Your task to perform on an android device: set an alarm Image 0: 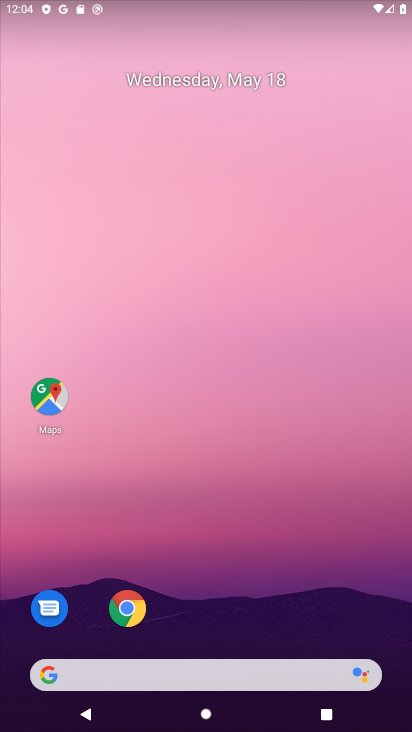
Step 0: press home button
Your task to perform on an android device: set an alarm Image 1: 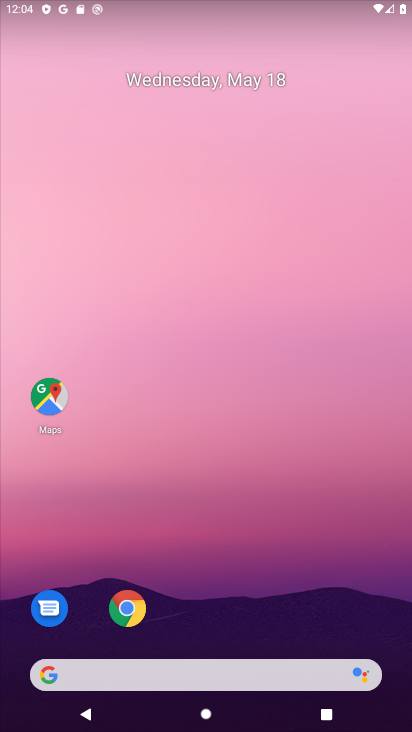
Step 1: drag from (275, 692) to (224, 219)
Your task to perform on an android device: set an alarm Image 2: 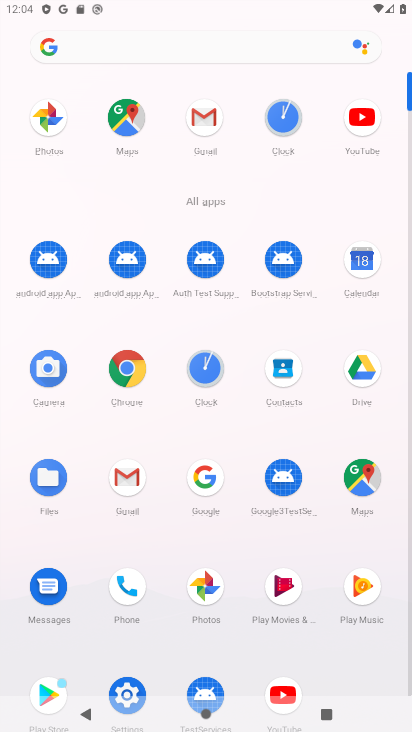
Step 2: click (202, 374)
Your task to perform on an android device: set an alarm Image 3: 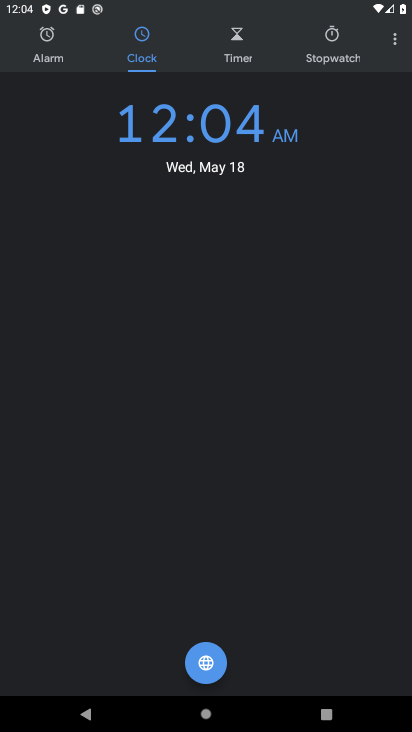
Step 3: click (38, 44)
Your task to perform on an android device: set an alarm Image 4: 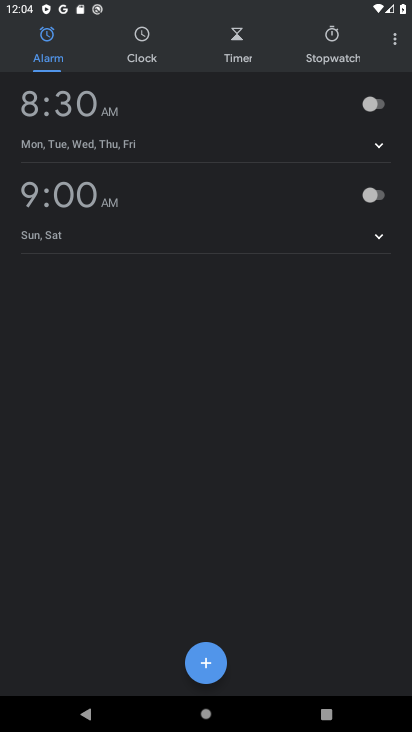
Step 4: click (353, 112)
Your task to perform on an android device: set an alarm Image 5: 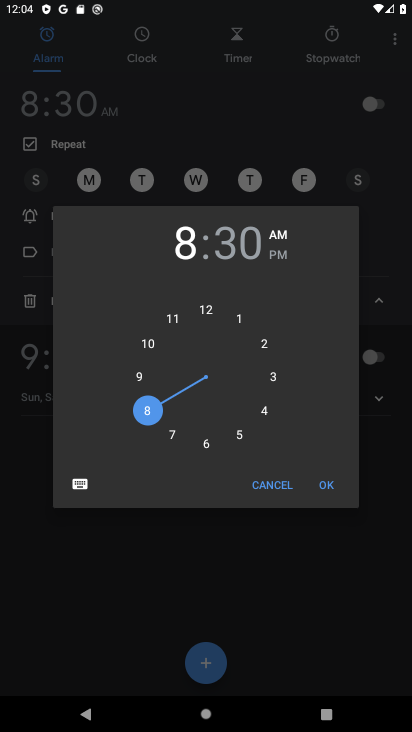
Step 5: click (304, 482)
Your task to perform on an android device: set an alarm Image 6: 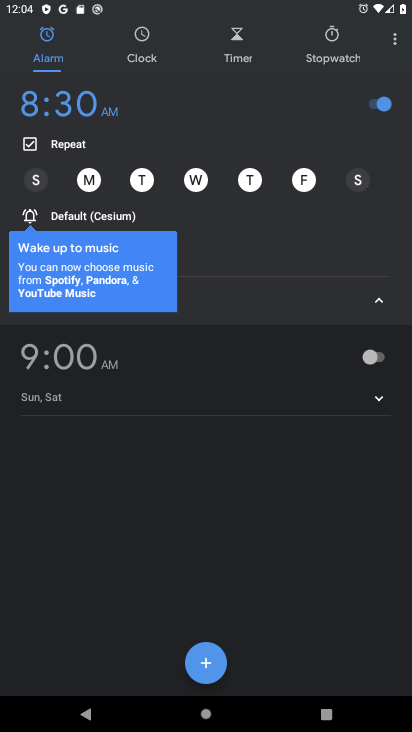
Step 6: task complete